Your task to perform on an android device: Go to accessibility settings Image 0: 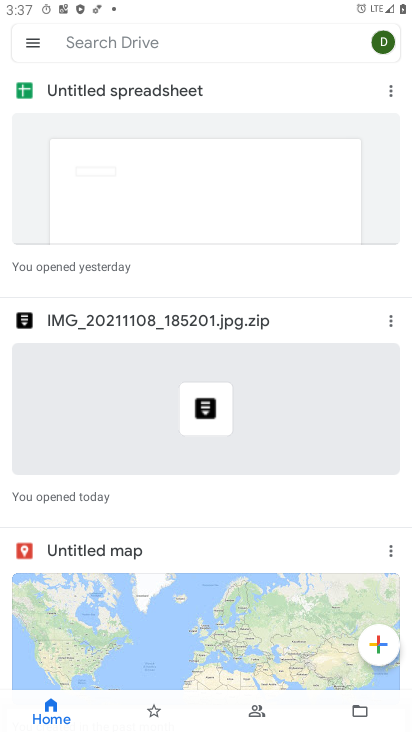
Step 0: press home button
Your task to perform on an android device: Go to accessibility settings Image 1: 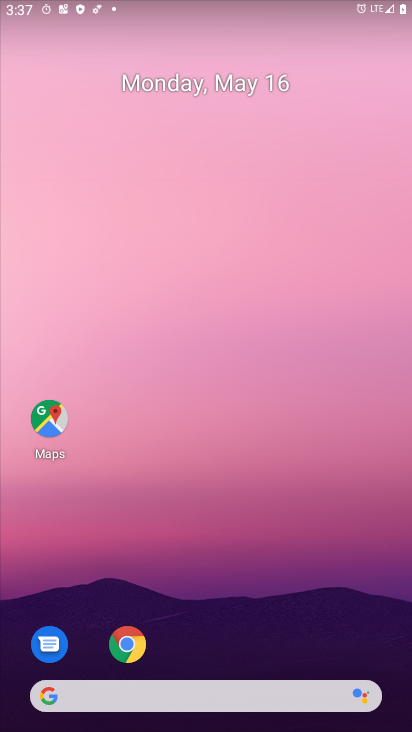
Step 1: drag from (194, 635) to (205, 202)
Your task to perform on an android device: Go to accessibility settings Image 2: 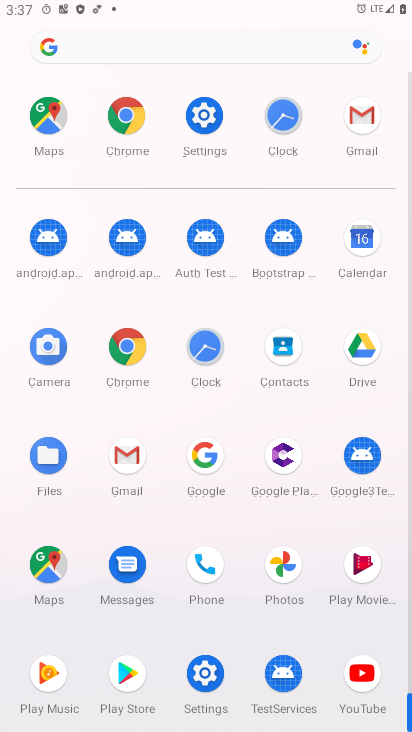
Step 2: click (213, 135)
Your task to perform on an android device: Go to accessibility settings Image 3: 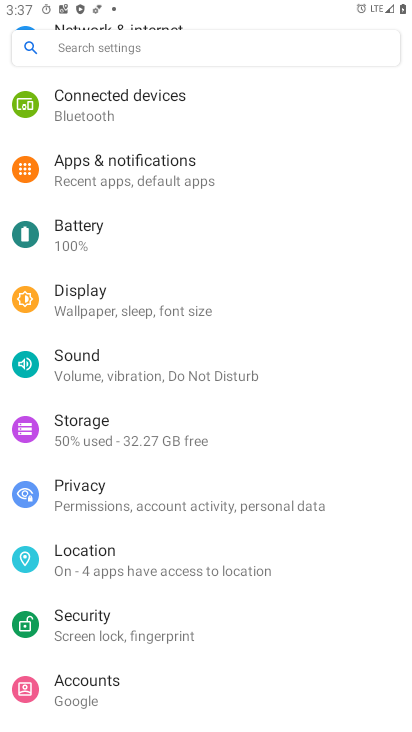
Step 3: drag from (136, 620) to (202, 210)
Your task to perform on an android device: Go to accessibility settings Image 4: 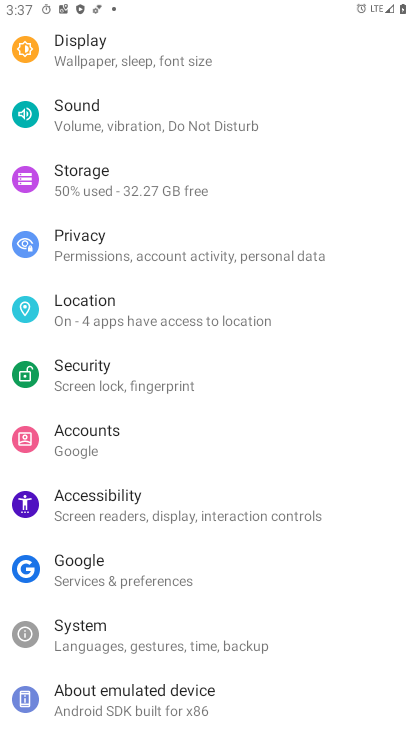
Step 4: click (164, 512)
Your task to perform on an android device: Go to accessibility settings Image 5: 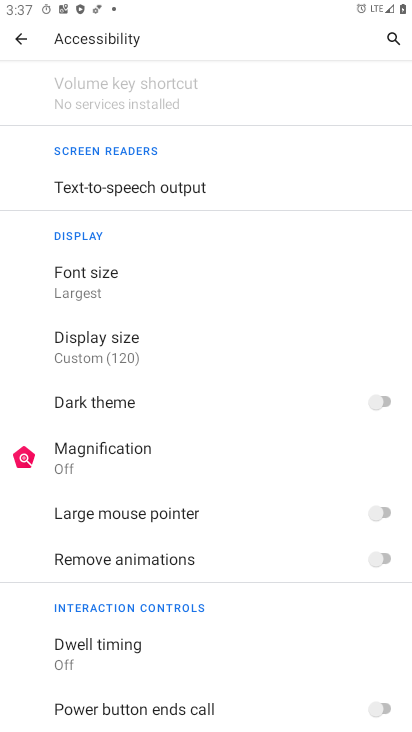
Step 5: task complete